Your task to perform on an android device: Open display settings Image 0: 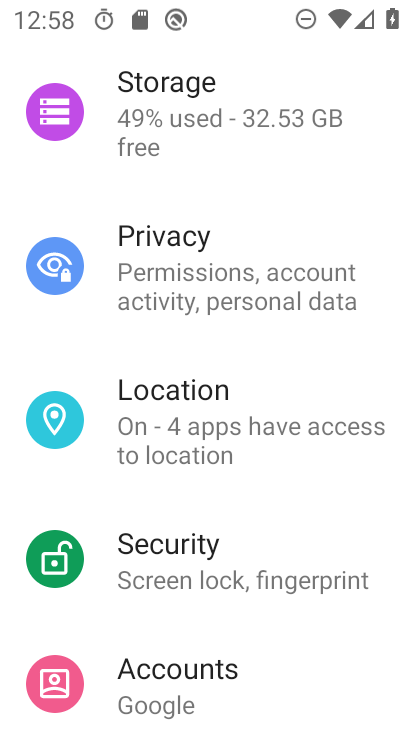
Step 0: drag from (252, 208) to (275, 259)
Your task to perform on an android device: Open display settings Image 1: 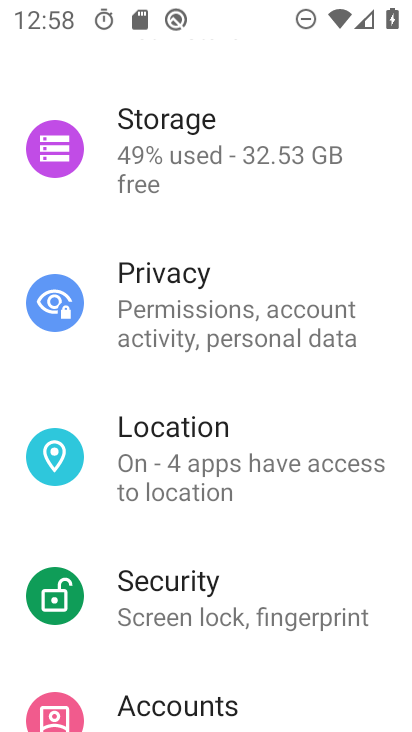
Step 1: drag from (267, 644) to (268, 364)
Your task to perform on an android device: Open display settings Image 2: 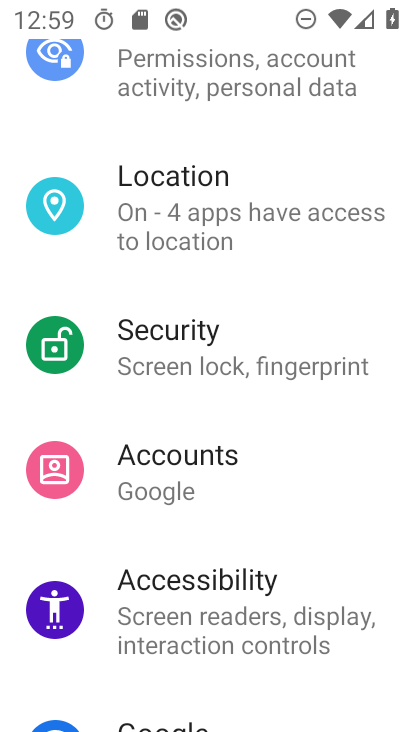
Step 2: drag from (254, 680) to (252, 256)
Your task to perform on an android device: Open display settings Image 3: 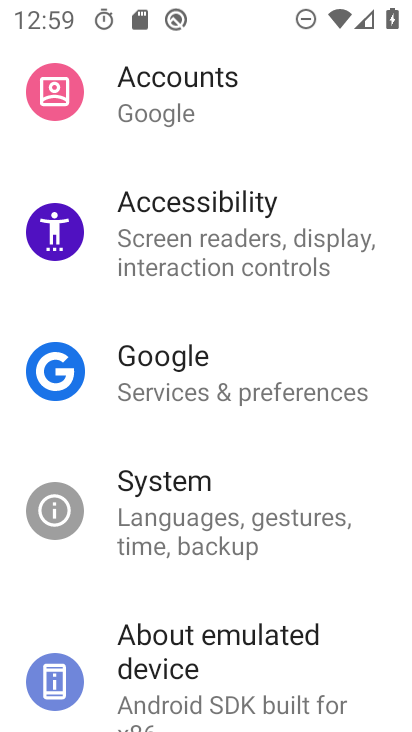
Step 3: drag from (228, 618) to (225, 222)
Your task to perform on an android device: Open display settings Image 4: 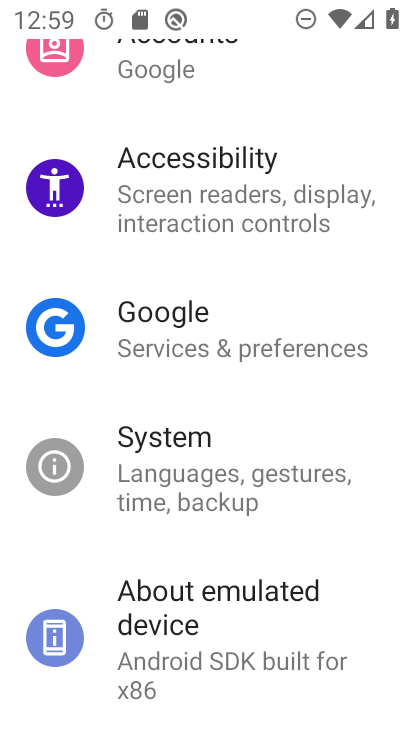
Step 4: drag from (263, 144) to (264, 629)
Your task to perform on an android device: Open display settings Image 5: 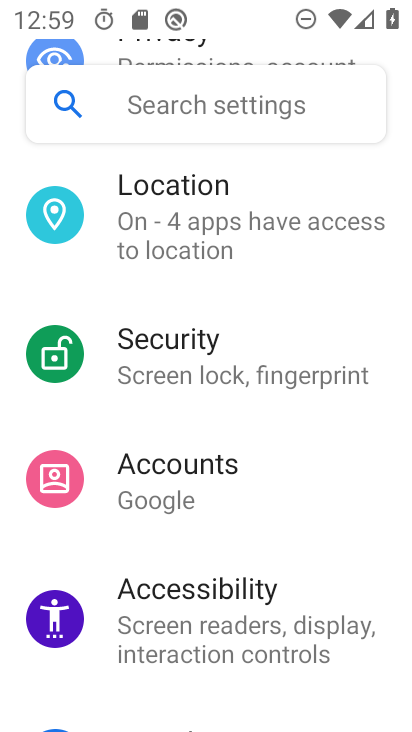
Step 5: drag from (272, 188) to (284, 554)
Your task to perform on an android device: Open display settings Image 6: 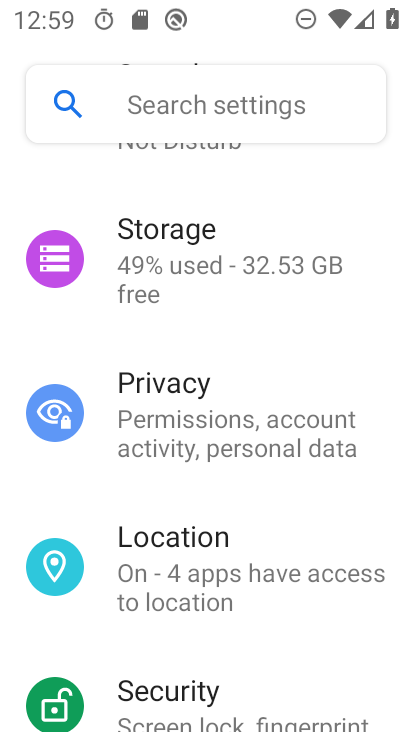
Step 6: drag from (276, 199) to (293, 540)
Your task to perform on an android device: Open display settings Image 7: 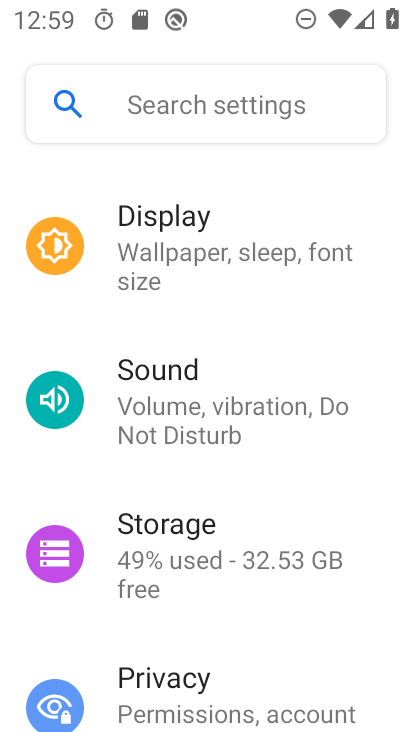
Step 7: click (155, 245)
Your task to perform on an android device: Open display settings Image 8: 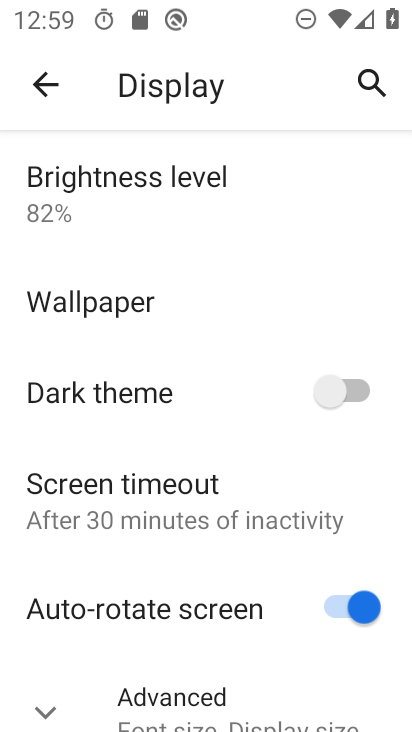
Step 8: task complete